Your task to perform on an android device: Open settings Image 0: 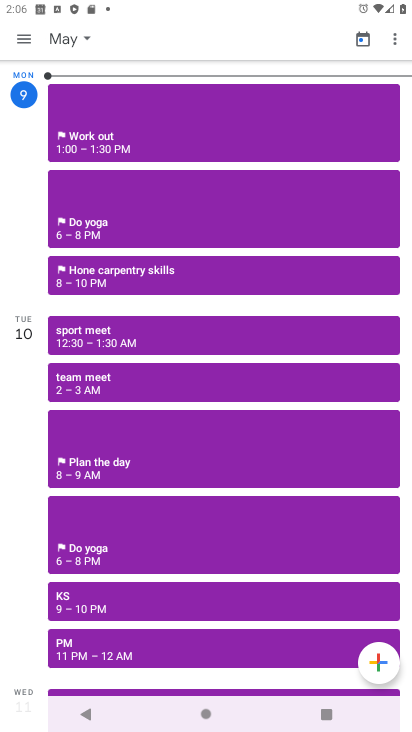
Step 0: press home button
Your task to perform on an android device: Open settings Image 1: 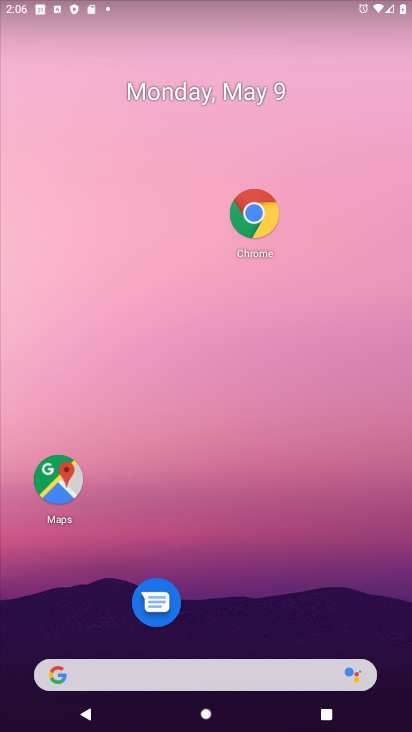
Step 1: drag from (311, 596) to (230, 88)
Your task to perform on an android device: Open settings Image 2: 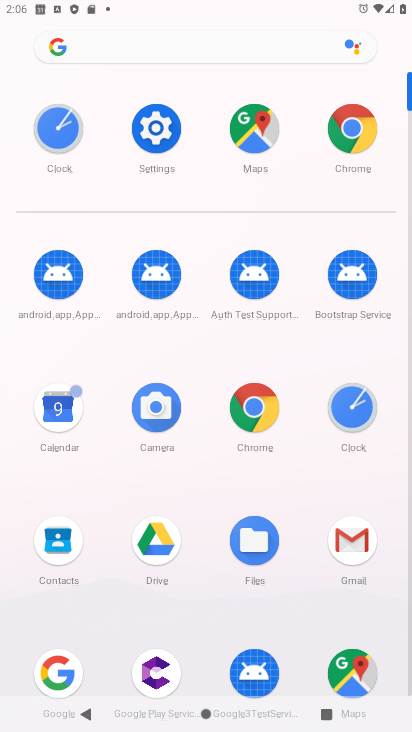
Step 2: click (143, 129)
Your task to perform on an android device: Open settings Image 3: 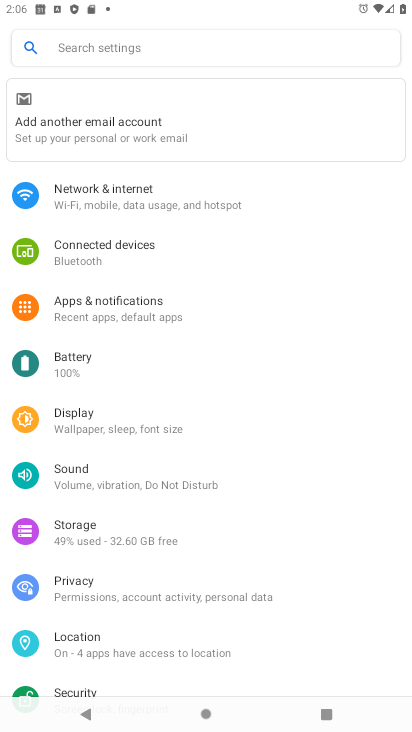
Step 3: task complete